Your task to perform on an android device: Go to wifi settings Image 0: 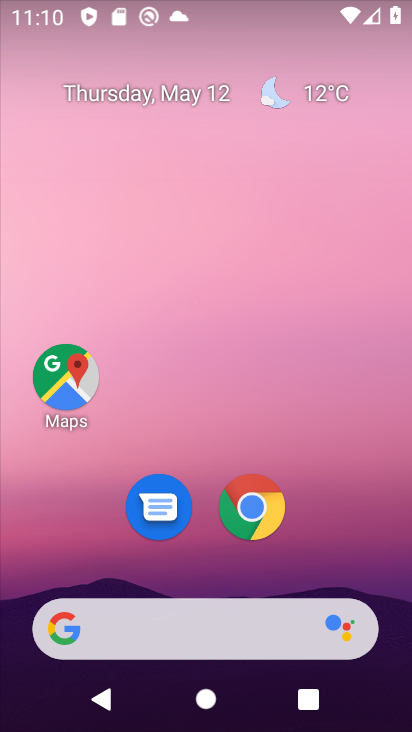
Step 0: drag from (207, 562) to (299, 66)
Your task to perform on an android device: Go to wifi settings Image 1: 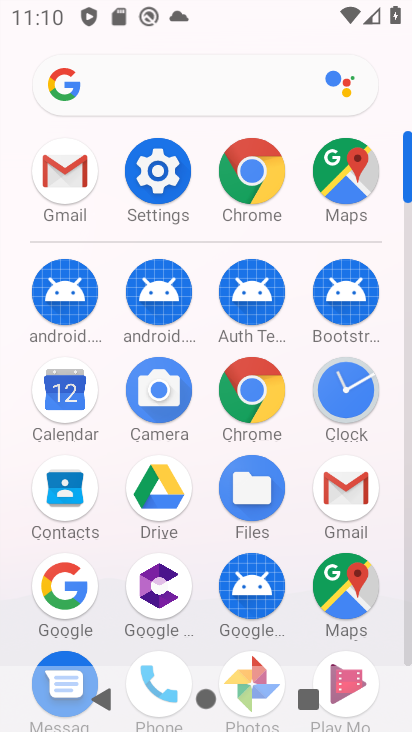
Step 1: click (165, 184)
Your task to perform on an android device: Go to wifi settings Image 2: 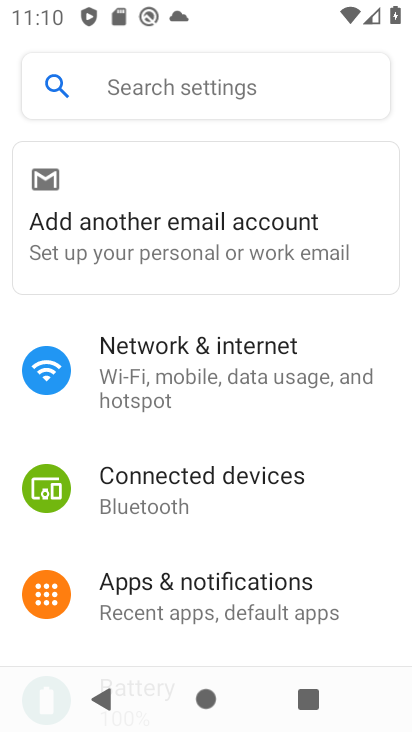
Step 2: click (160, 379)
Your task to perform on an android device: Go to wifi settings Image 3: 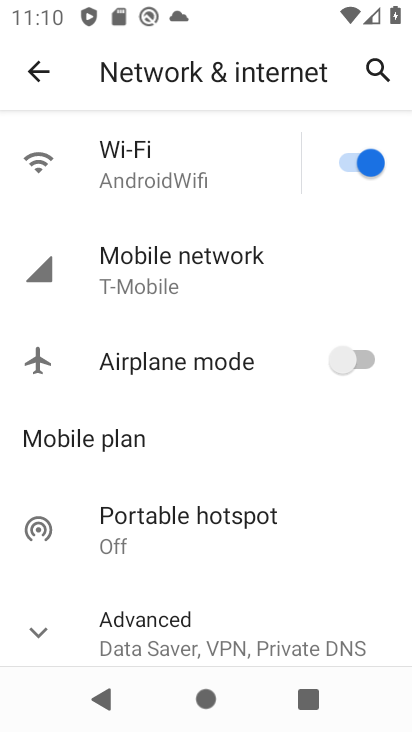
Step 3: click (155, 163)
Your task to perform on an android device: Go to wifi settings Image 4: 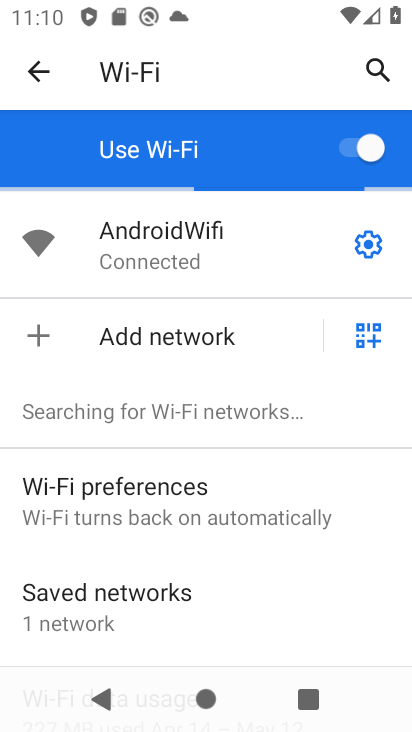
Step 4: task complete